Your task to perform on an android device: turn on bluetooth scan Image 0: 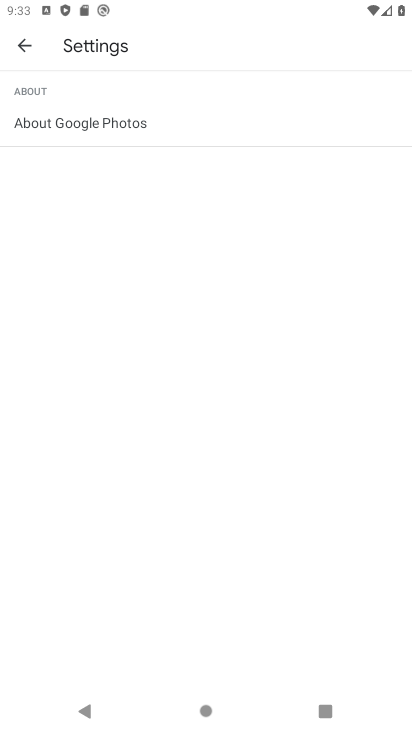
Step 0: press home button
Your task to perform on an android device: turn on bluetooth scan Image 1: 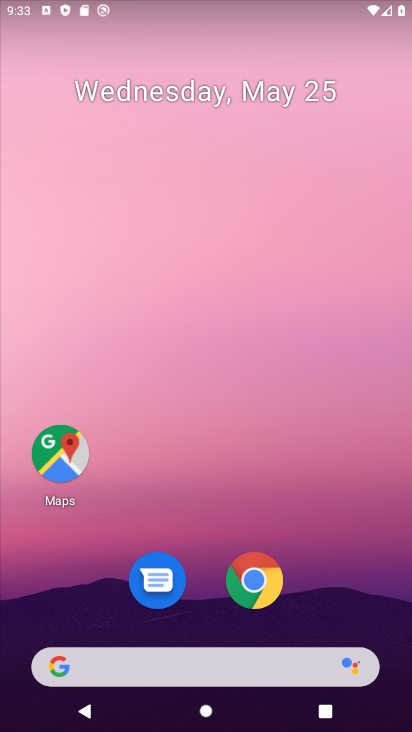
Step 1: drag from (12, 471) to (213, 129)
Your task to perform on an android device: turn on bluetooth scan Image 2: 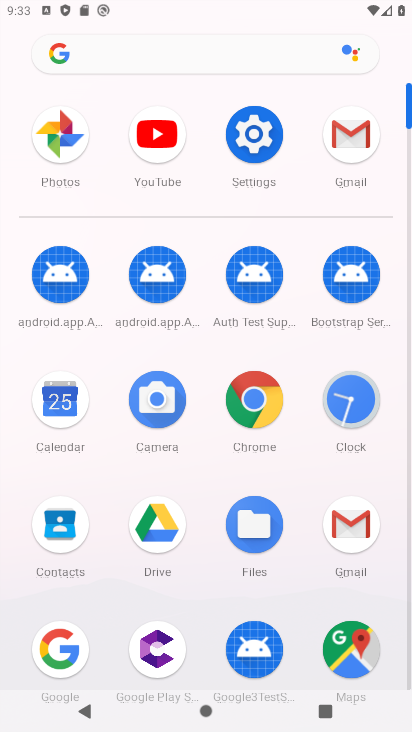
Step 2: click (245, 152)
Your task to perform on an android device: turn on bluetooth scan Image 3: 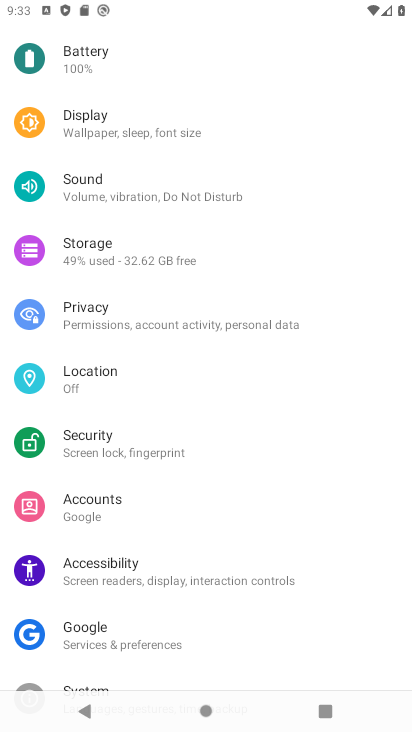
Step 3: click (98, 380)
Your task to perform on an android device: turn on bluetooth scan Image 4: 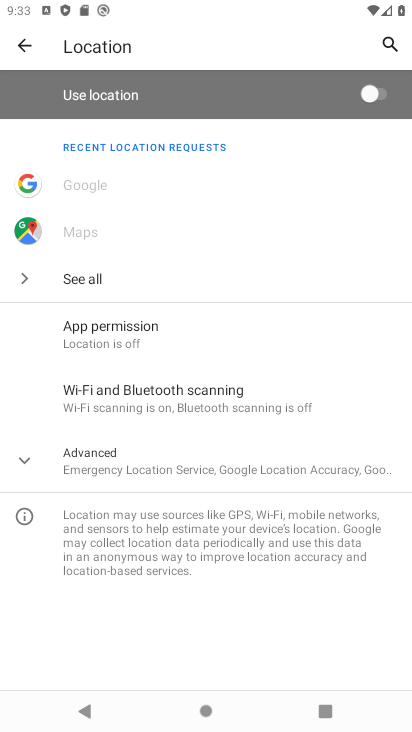
Step 4: click (154, 408)
Your task to perform on an android device: turn on bluetooth scan Image 5: 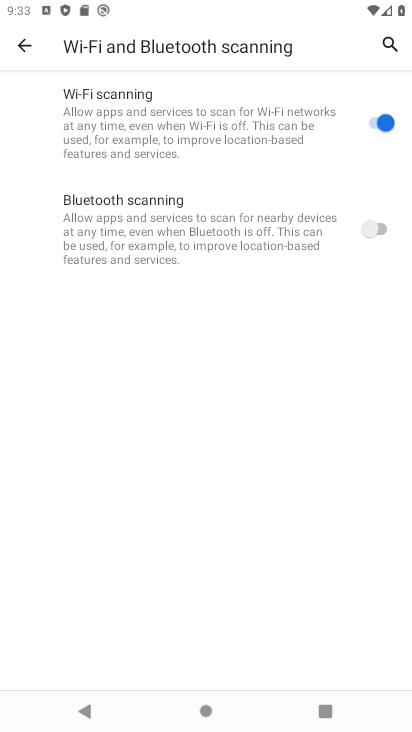
Step 5: click (369, 232)
Your task to perform on an android device: turn on bluetooth scan Image 6: 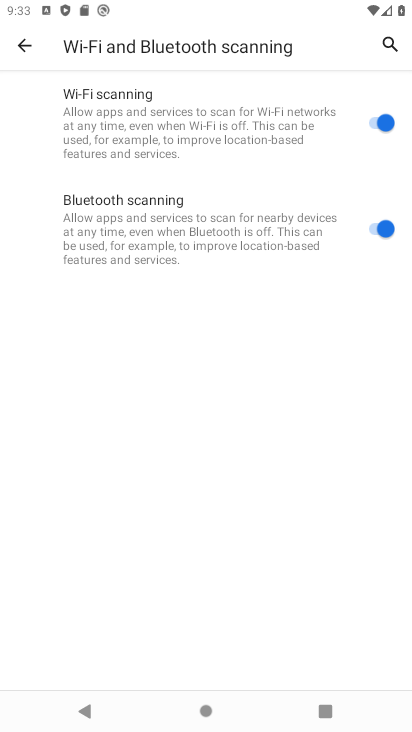
Step 6: task complete